Your task to perform on an android device: turn notification dots on Image 0: 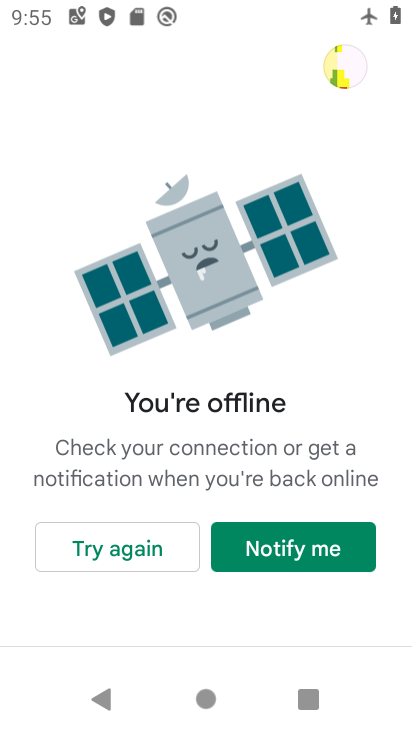
Step 0: press home button
Your task to perform on an android device: turn notification dots on Image 1: 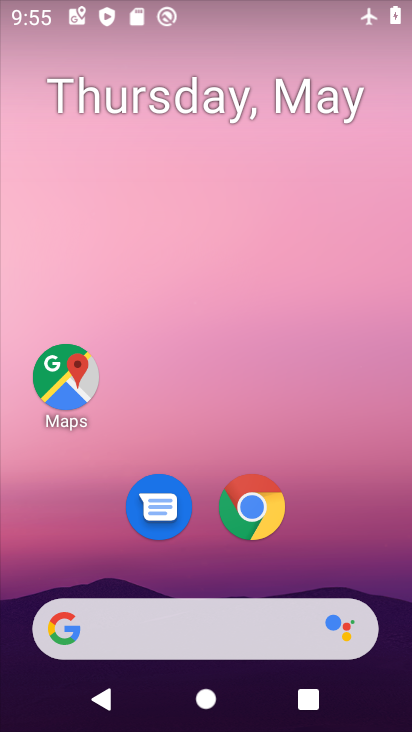
Step 1: drag from (197, 577) to (151, 192)
Your task to perform on an android device: turn notification dots on Image 2: 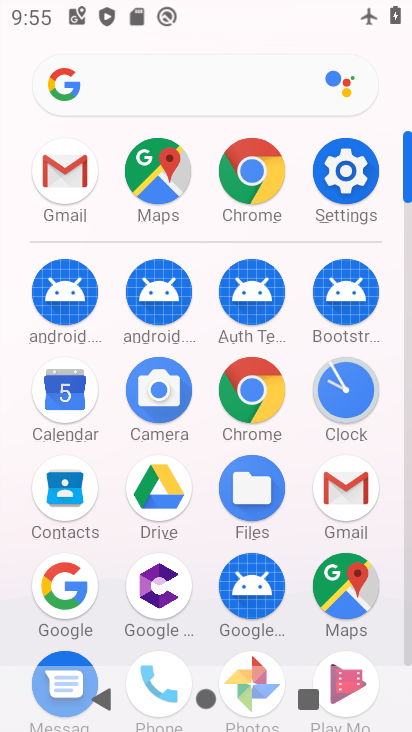
Step 2: click (348, 193)
Your task to perform on an android device: turn notification dots on Image 3: 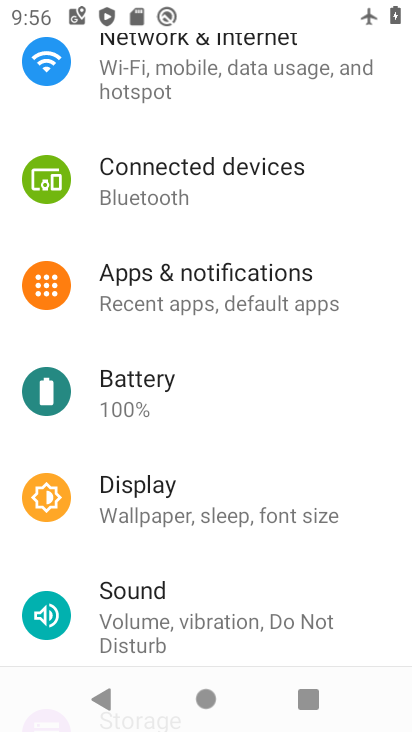
Step 3: click (309, 270)
Your task to perform on an android device: turn notification dots on Image 4: 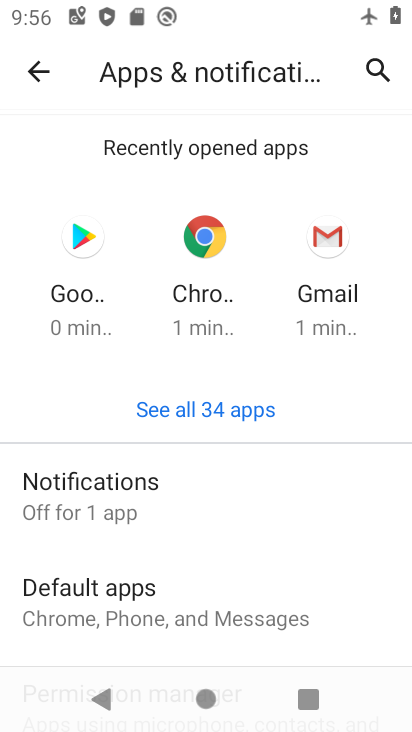
Step 4: click (216, 505)
Your task to perform on an android device: turn notification dots on Image 5: 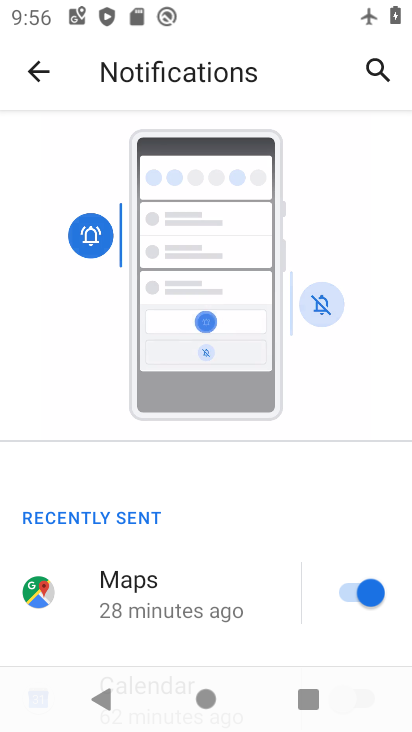
Step 5: drag from (248, 499) to (284, 370)
Your task to perform on an android device: turn notification dots on Image 6: 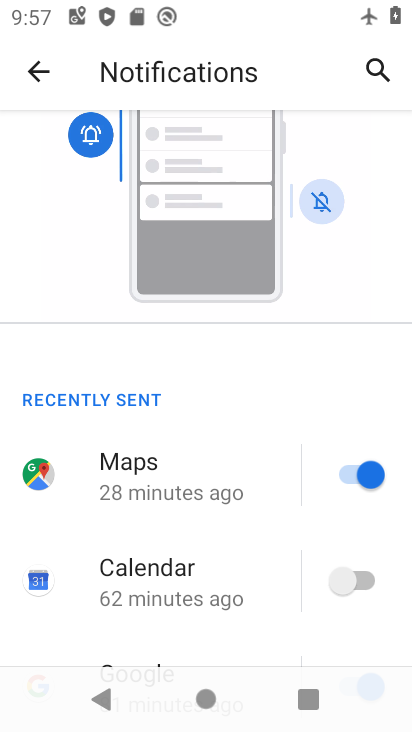
Step 6: drag from (162, 360) to (192, 146)
Your task to perform on an android device: turn notification dots on Image 7: 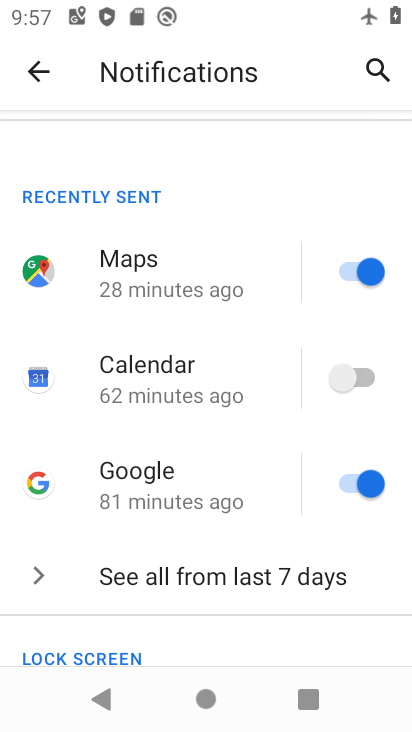
Step 7: drag from (180, 511) to (214, 128)
Your task to perform on an android device: turn notification dots on Image 8: 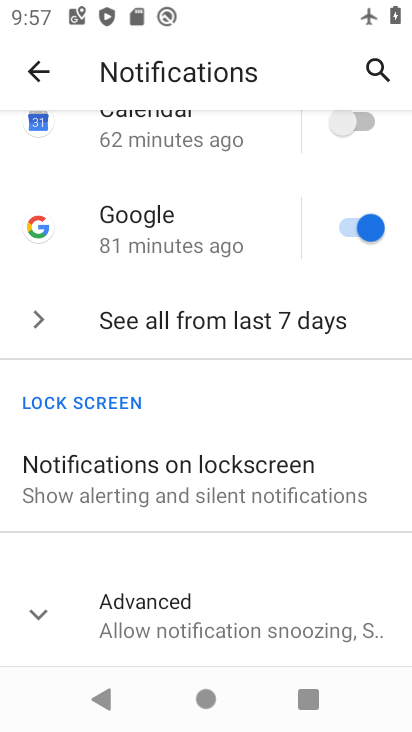
Step 8: click (193, 492)
Your task to perform on an android device: turn notification dots on Image 9: 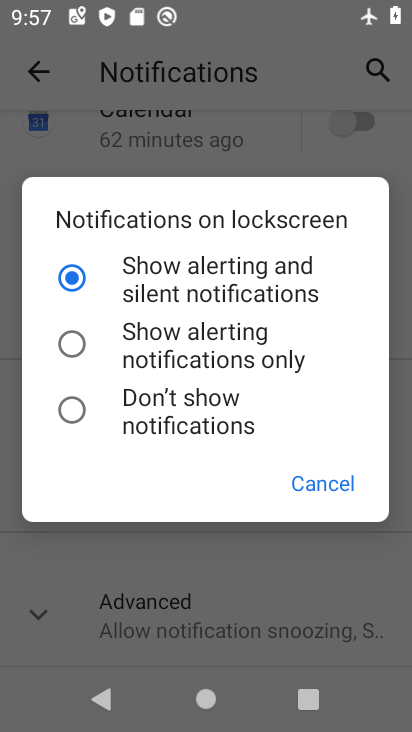
Step 9: click (309, 487)
Your task to perform on an android device: turn notification dots on Image 10: 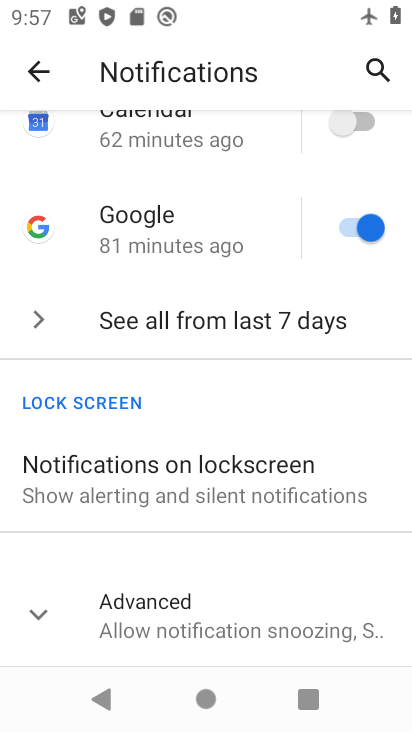
Step 10: click (233, 606)
Your task to perform on an android device: turn notification dots on Image 11: 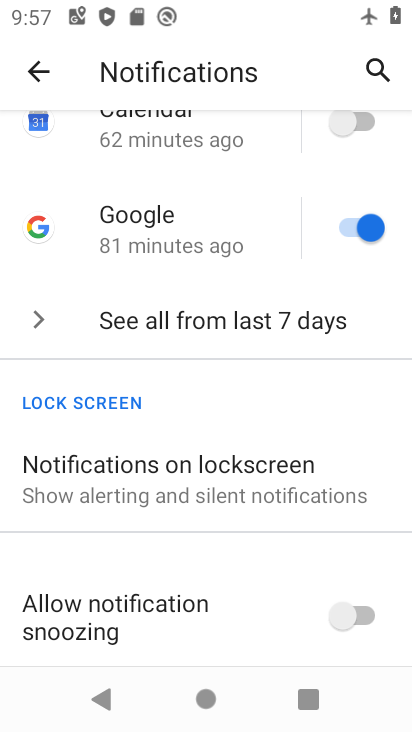
Step 11: task complete